Your task to perform on an android device: change notification settings in the gmail app Image 0: 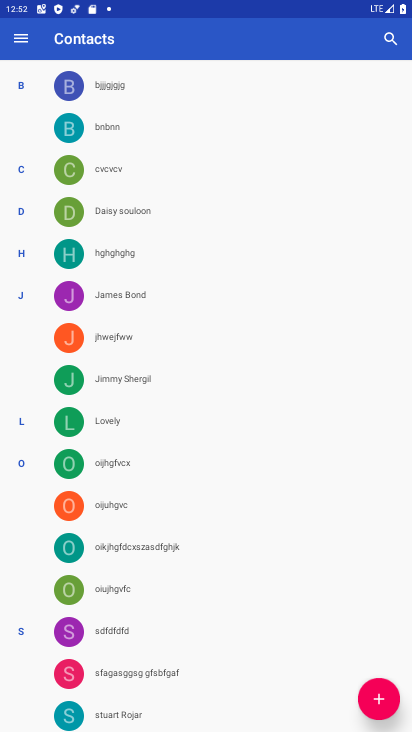
Step 0: press home button
Your task to perform on an android device: change notification settings in the gmail app Image 1: 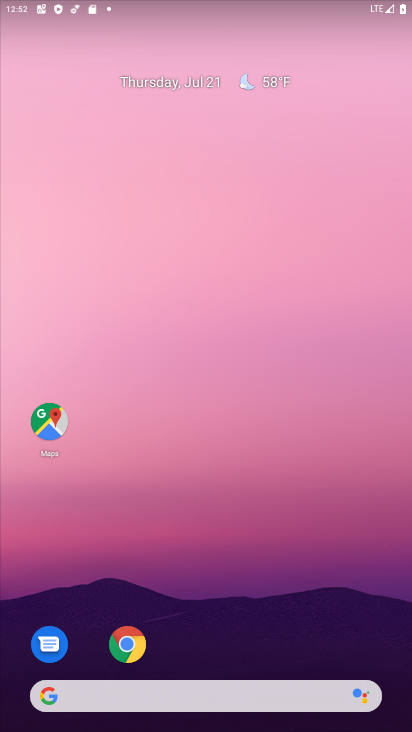
Step 1: drag from (361, 609) to (376, 121)
Your task to perform on an android device: change notification settings in the gmail app Image 2: 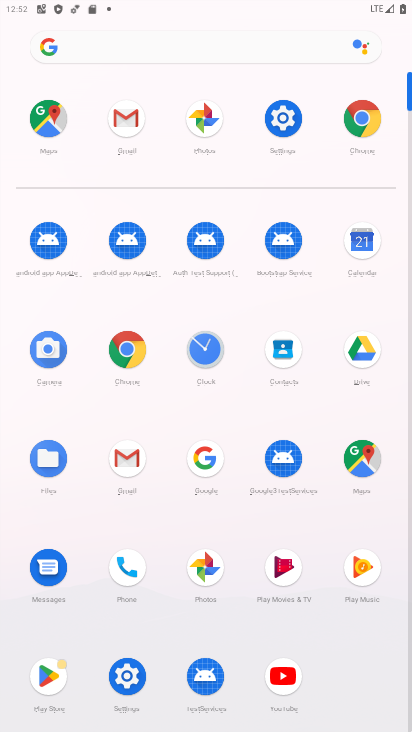
Step 2: click (133, 464)
Your task to perform on an android device: change notification settings in the gmail app Image 3: 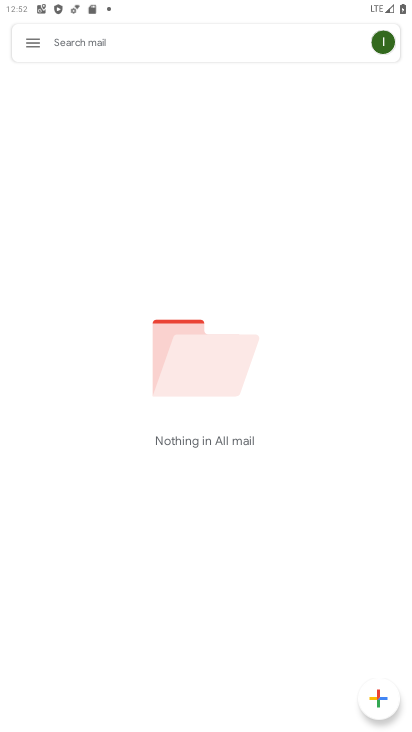
Step 3: click (26, 43)
Your task to perform on an android device: change notification settings in the gmail app Image 4: 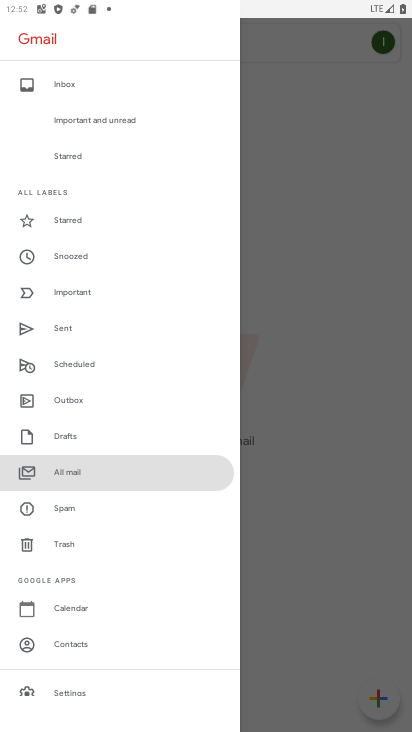
Step 4: drag from (123, 617) to (130, 428)
Your task to perform on an android device: change notification settings in the gmail app Image 5: 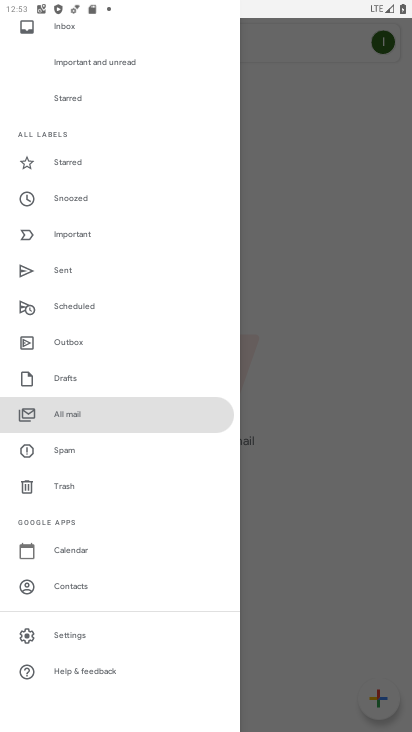
Step 5: click (90, 632)
Your task to perform on an android device: change notification settings in the gmail app Image 6: 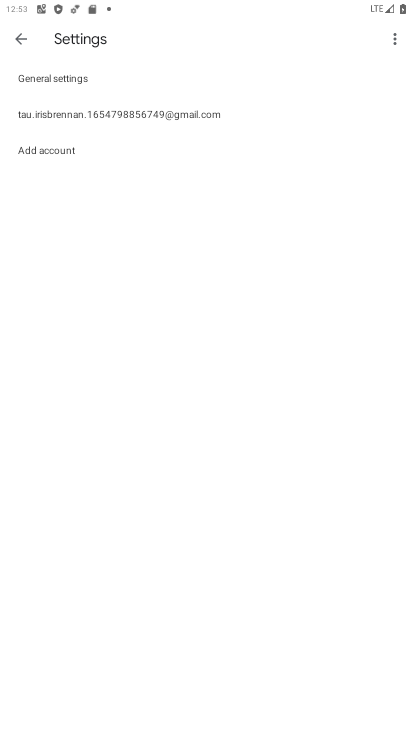
Step 6: click (164, 114)
Your task to perform on an android device: change notification settings in the gmail app Image 7: 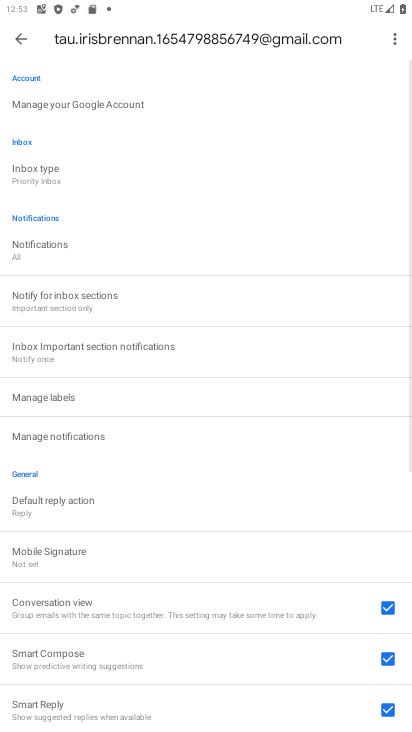
Step 7: drag from (282, 360) to (293, 319)
Your task to perform on an android device: change notification settings in the gmail app Image 8: 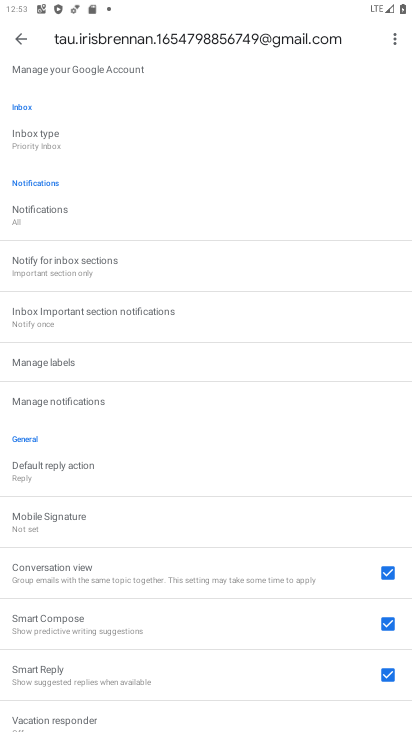
Step 8: drag from (320, 455) to (321, 359)
Your task to perform on an android device: change notification settings in the gmail app Image 9: 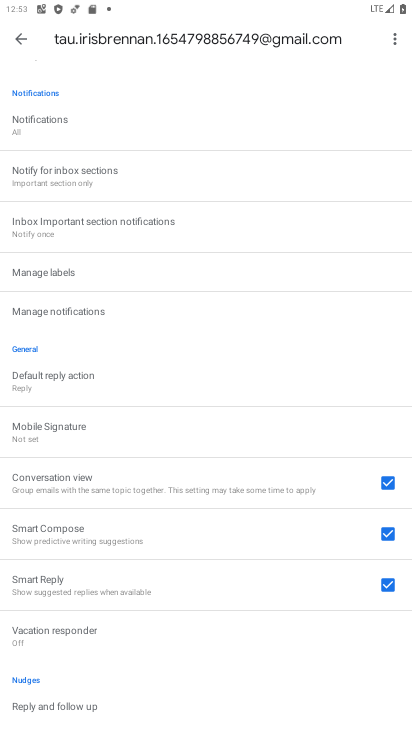
Step 9: drag from (316, 483) to (310, 410)
Your task to perform on an android device: change notification settings in the gmail app Image 10: 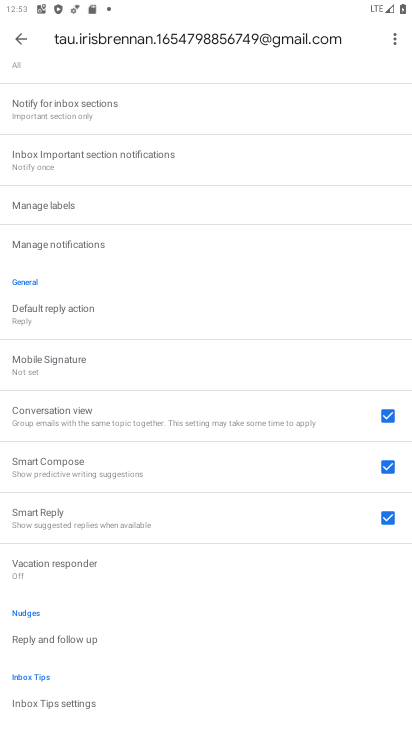
Step 10: drag from (309, 489) to (317, 375)
Your task to perform on an android device: change notification settings in the gmail app Image 11: 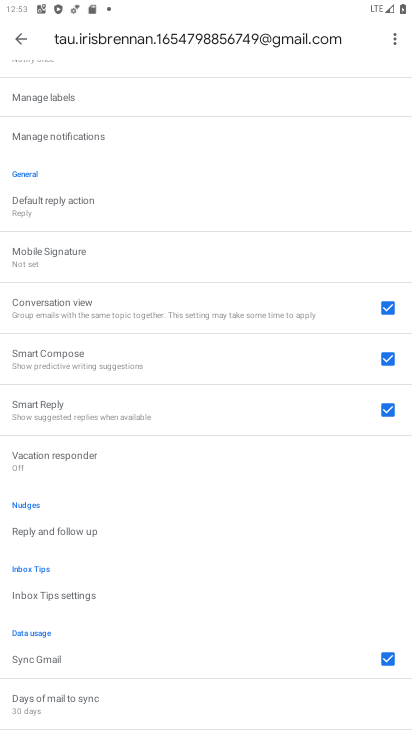
Step 11: drag from (304, 568) to (308, 361)
Your task to perform on an android device: change notification settings in the gmail app Image 12: 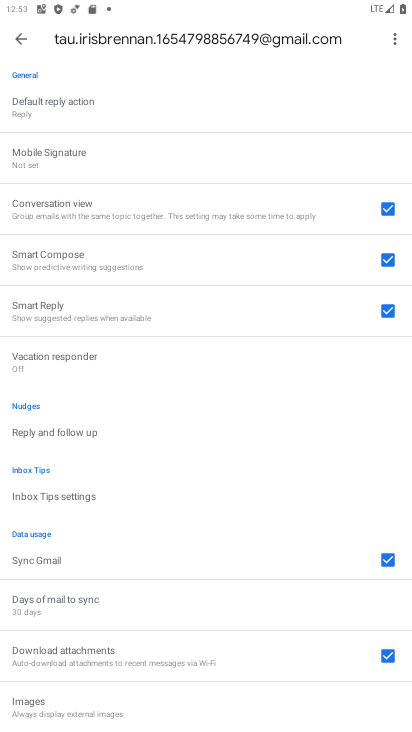
Step 12: drag from (288, 242) to (282, 322)
Your task to perform on an android device: change notification settings in the gmail app Image 13: 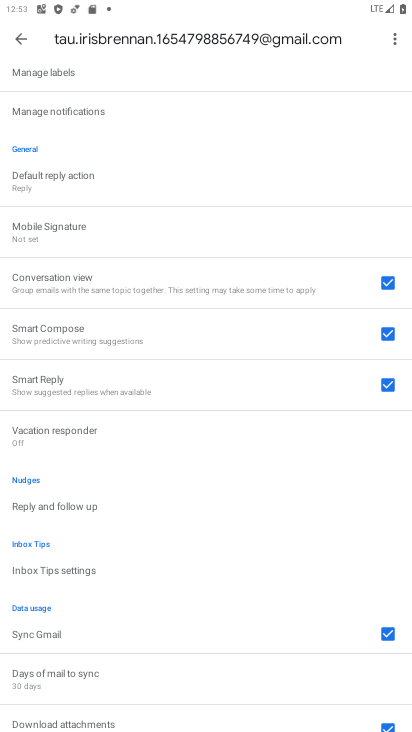
Step 13: drag from (200, 124) to (224, 302)
Your task to perform on an android device: change notification settings in the gmail app Image 14: 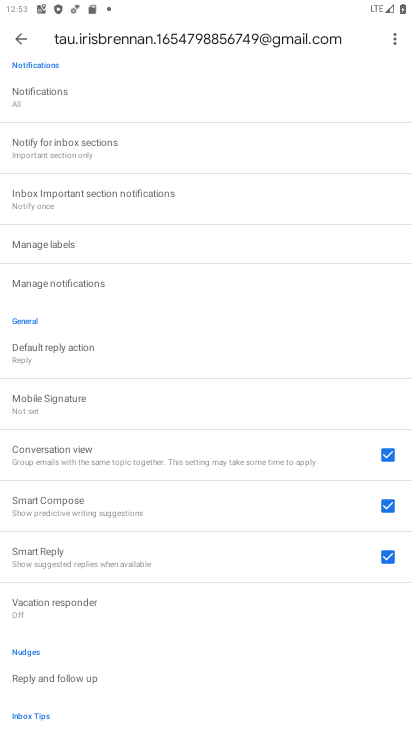
Step 14: drag from (251, 155) to (252, 287)
Your task to perform on an android device: change notification settings in the gmail app Image 15: 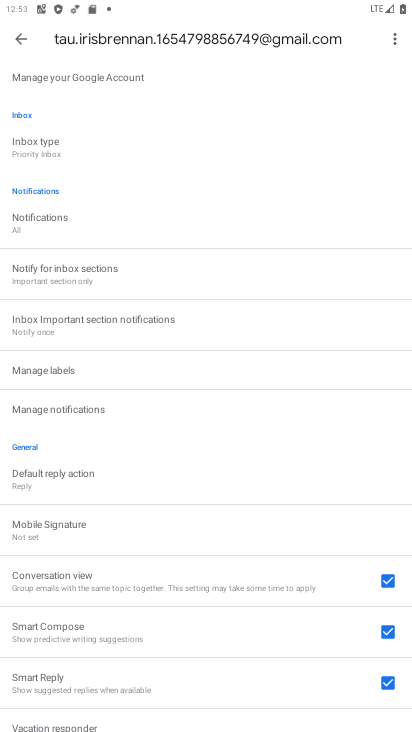
Step 15: click (147, 222)
Your task to perform on an android device: change notification settings in the gmail app Image 16: 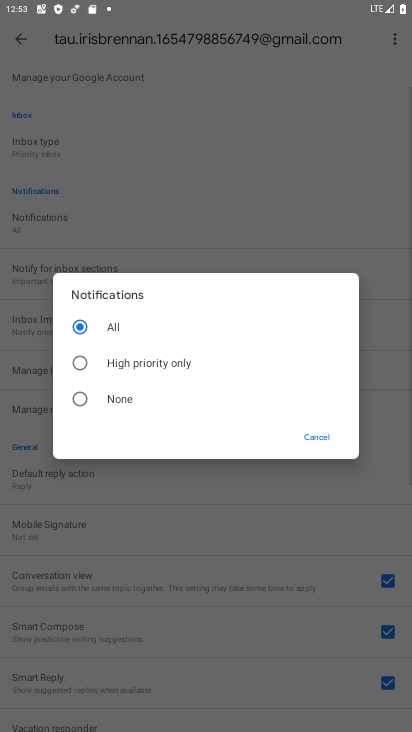
Step 16: click (164, 363)
Your task to perform on an android device: change notification settings in the gmail app Image 17: 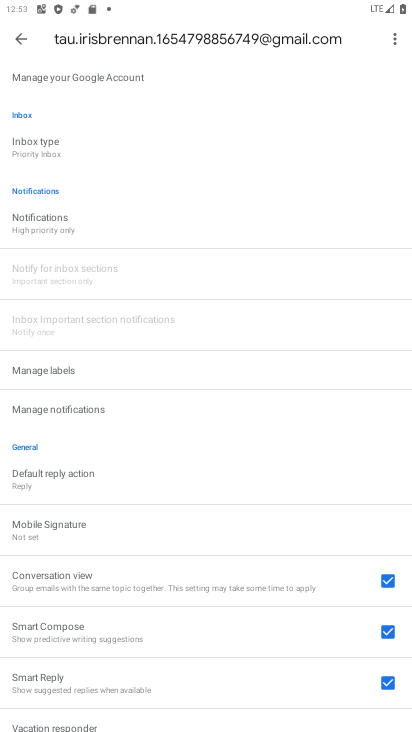
Step 17: task complete